Your task to perform on an android device: allow cookies in the chrome app Image 0: 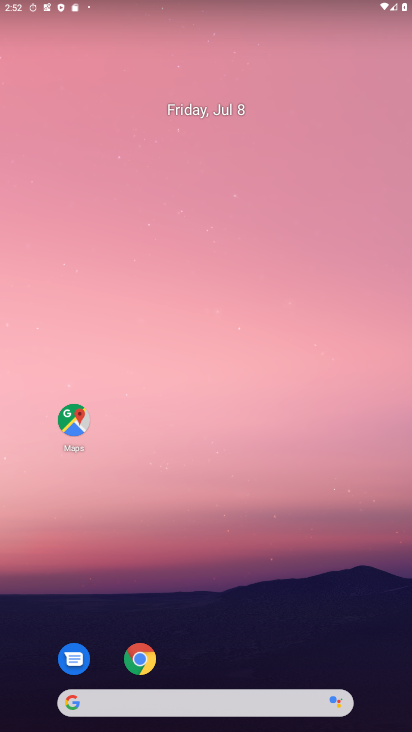
Step 0: click (139, 659)
Your task to perform on an android device: allow cookies in the chrome app Image 1: 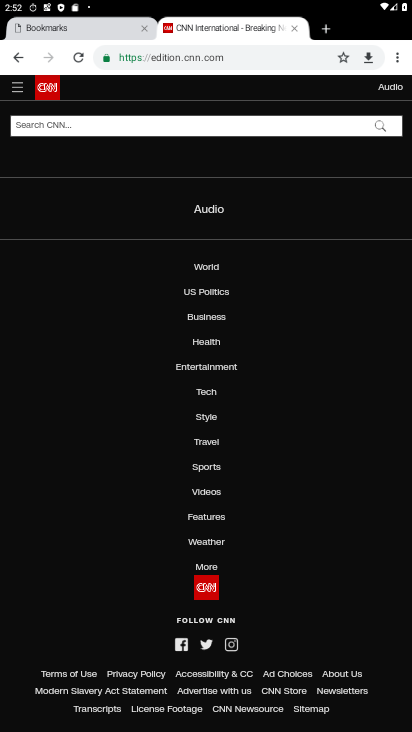
Step 1: click (396, 54)
Your task to perform on an android device: allow cookies in the chrome app Image 2: 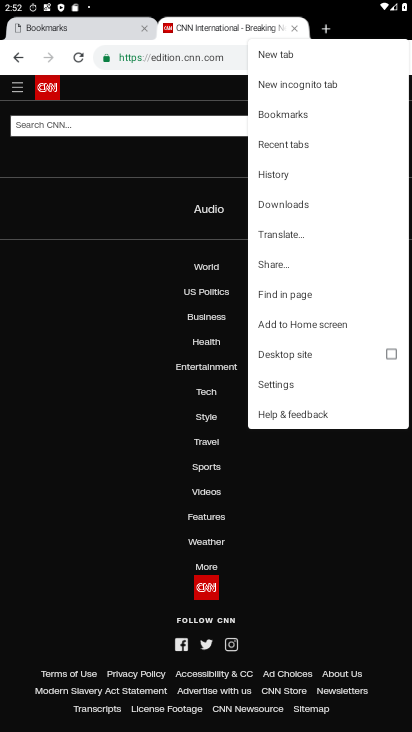
Step 2: click (307, 376)
Your task to perform on an android device: allow cookies in the chrome app Image 3: 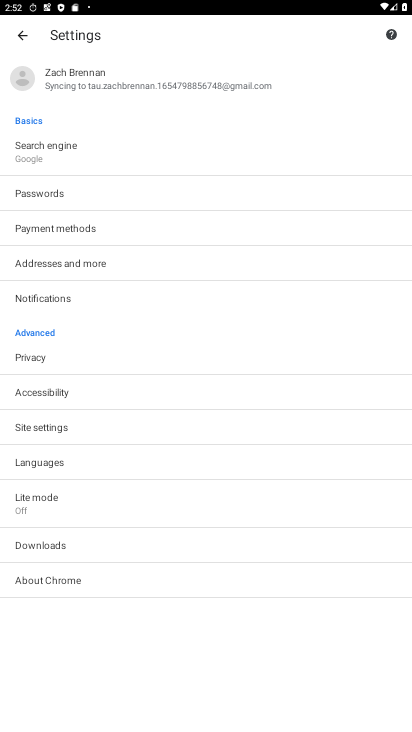
Step 3: click (94, 429)
Your task to perform on an android device: allow cookies in the chrome app Image 4: 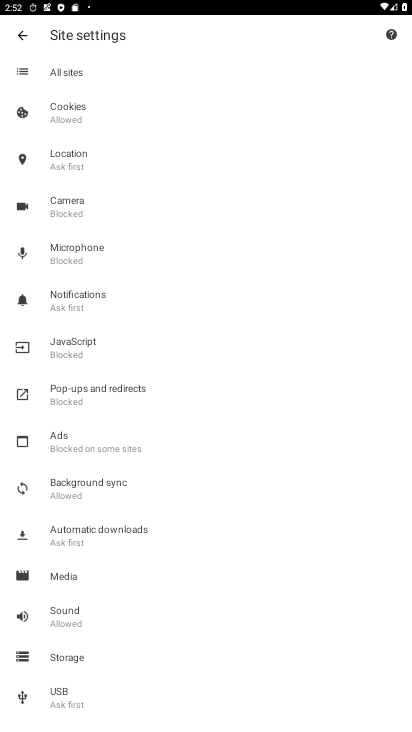
Step 4: click (120, 102)
Your task to perform on an android device: allow cookies in the chrome app Image 5: 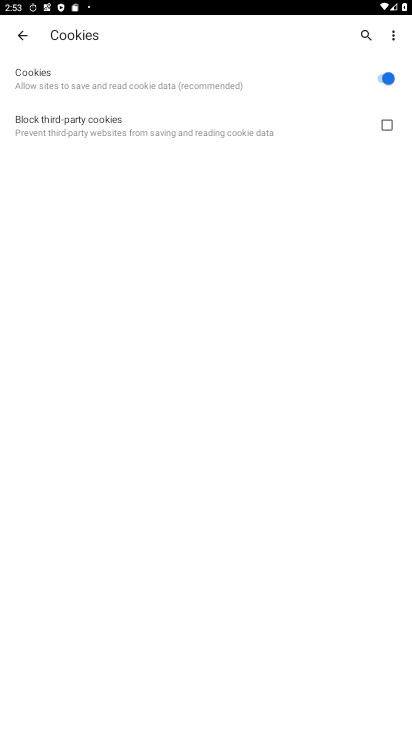
Step 5: task complete